Your task to perform on an android device: toggle pop-ups in chrome Image 0: 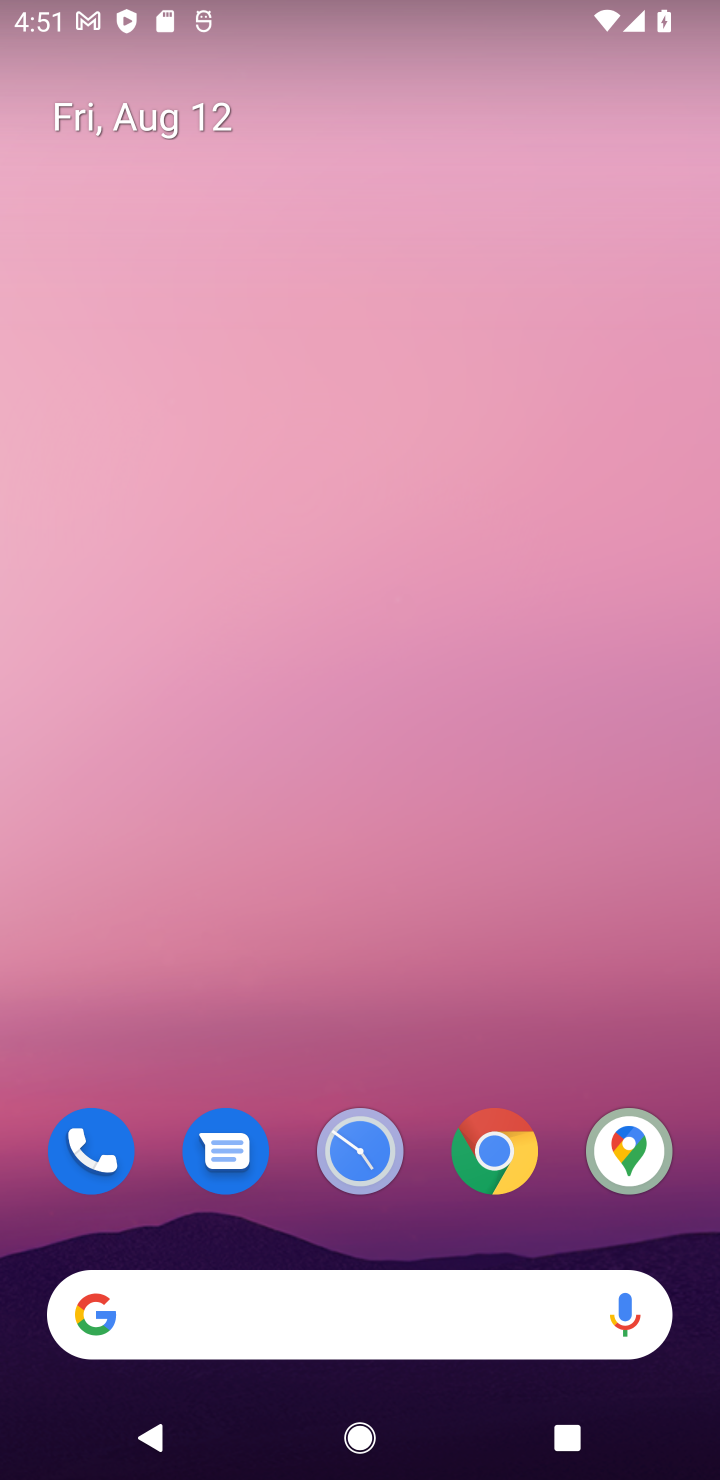
Step 0: drag from (418, 777) to (533, 63)
Your task to perform on an android device: toggle pop-ups in chrome Image 1: 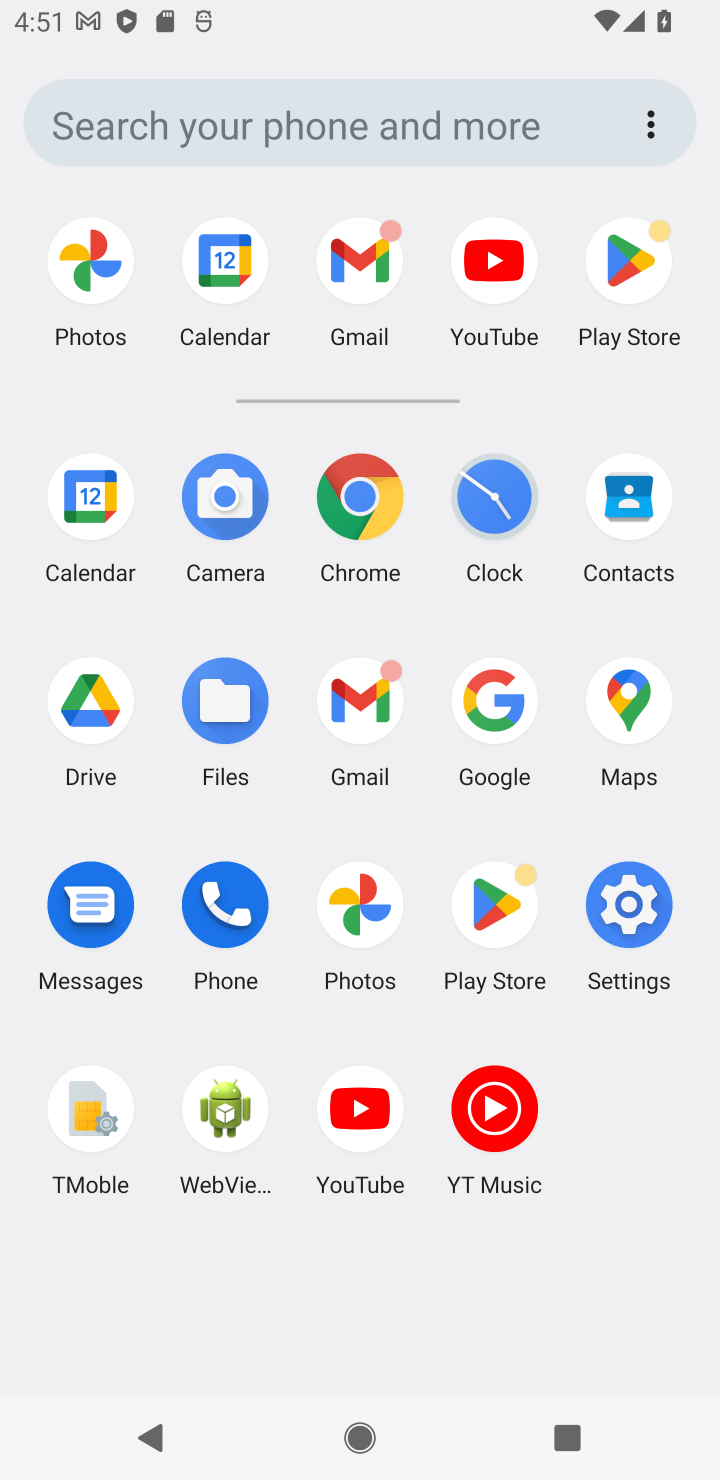
Step 1: click (361, 488)
Your task to perform on an android device: toggle pop-ups in chrome Image 2: 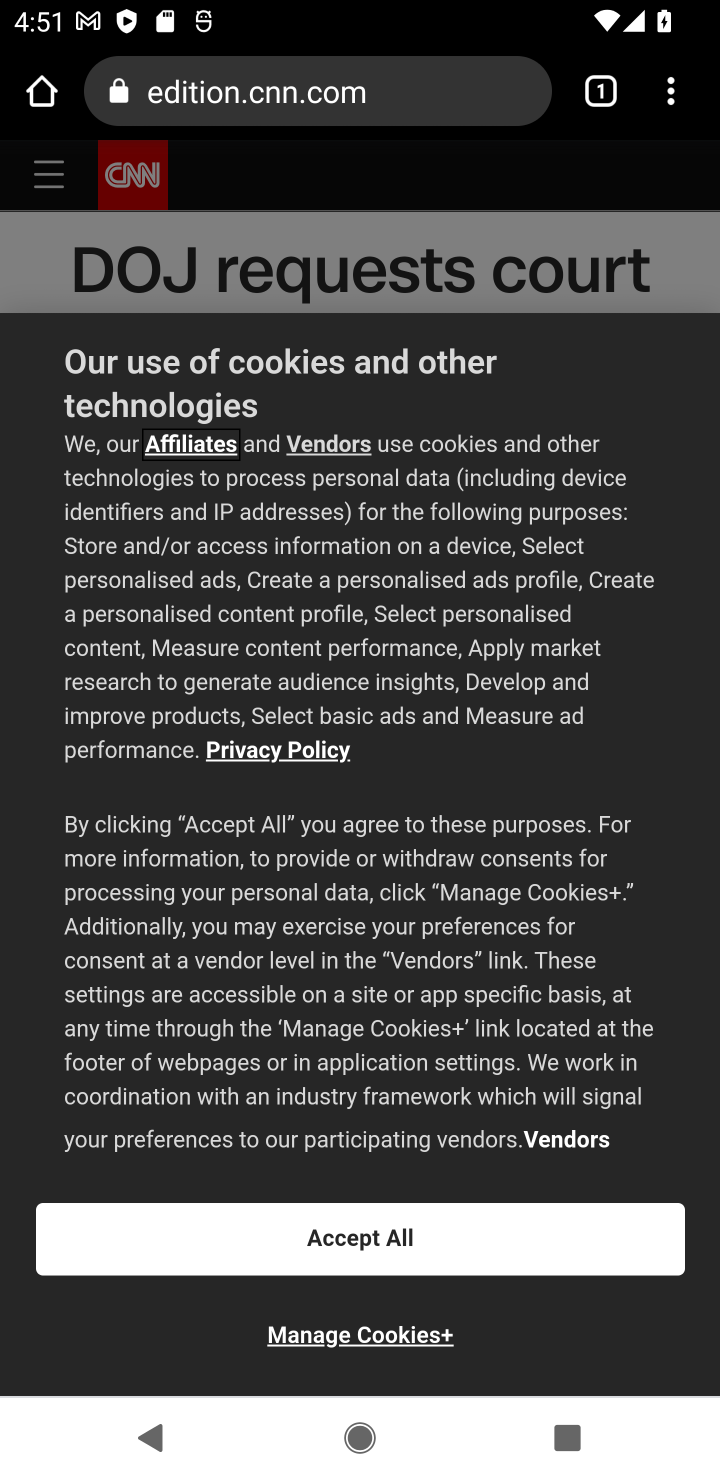
Step 2: drag from (678, 77) to (364, 1265)
Your task to perform on an android device: toggle pop-ups in chrome Image 3: 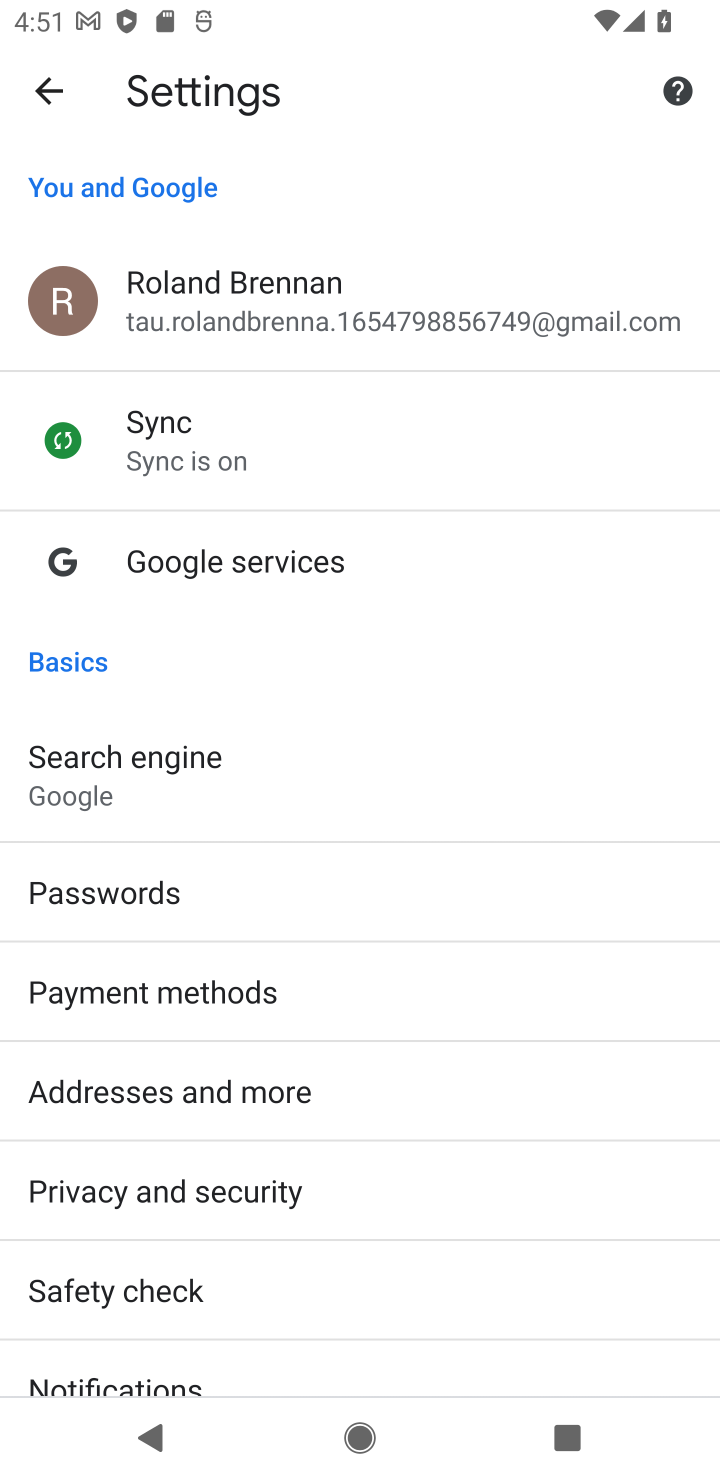
Step 3: drag from (433, 1226) to (612, 445)
Your task to perform on an android device: toggle pop-ups in chrome Image 4: 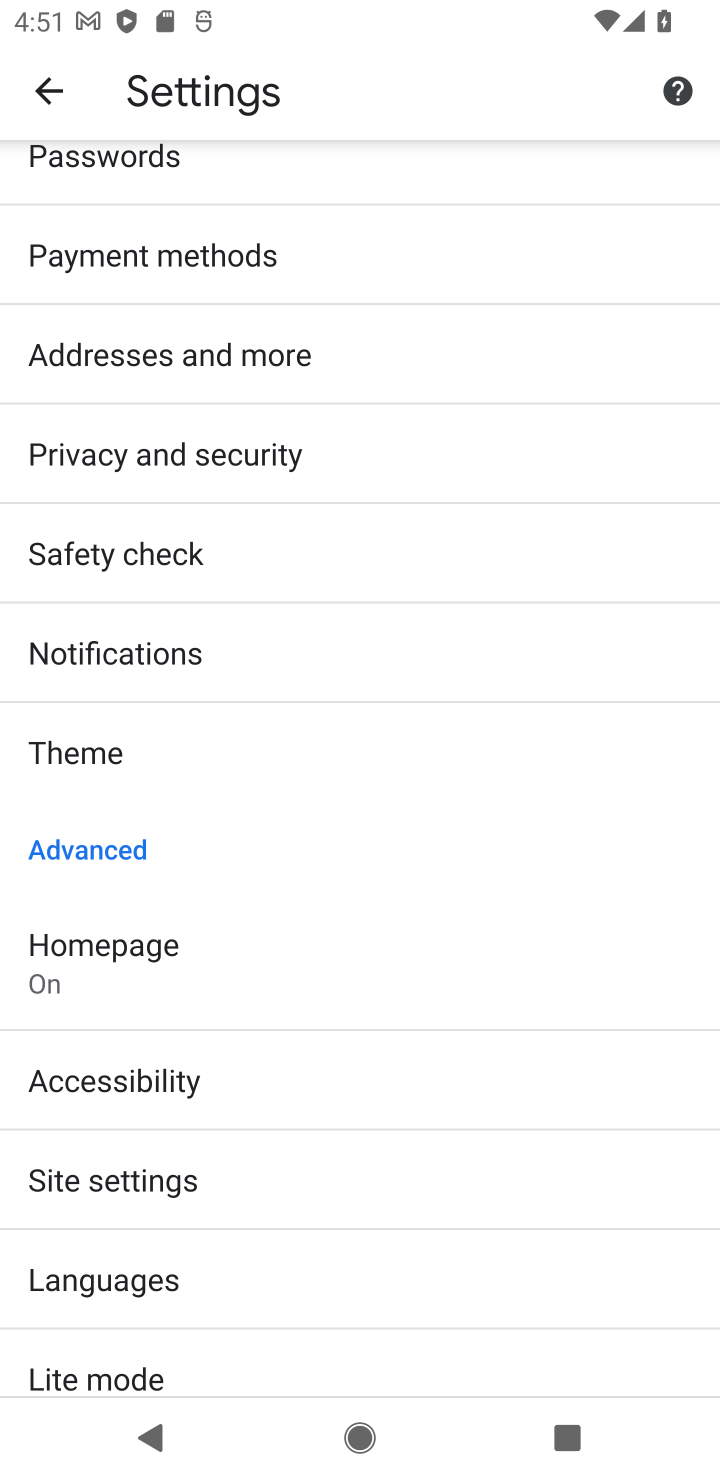
Step 4: click (189, 1166)
Your task to perform on an android device: toggle pop-ups in chrome Image 5: 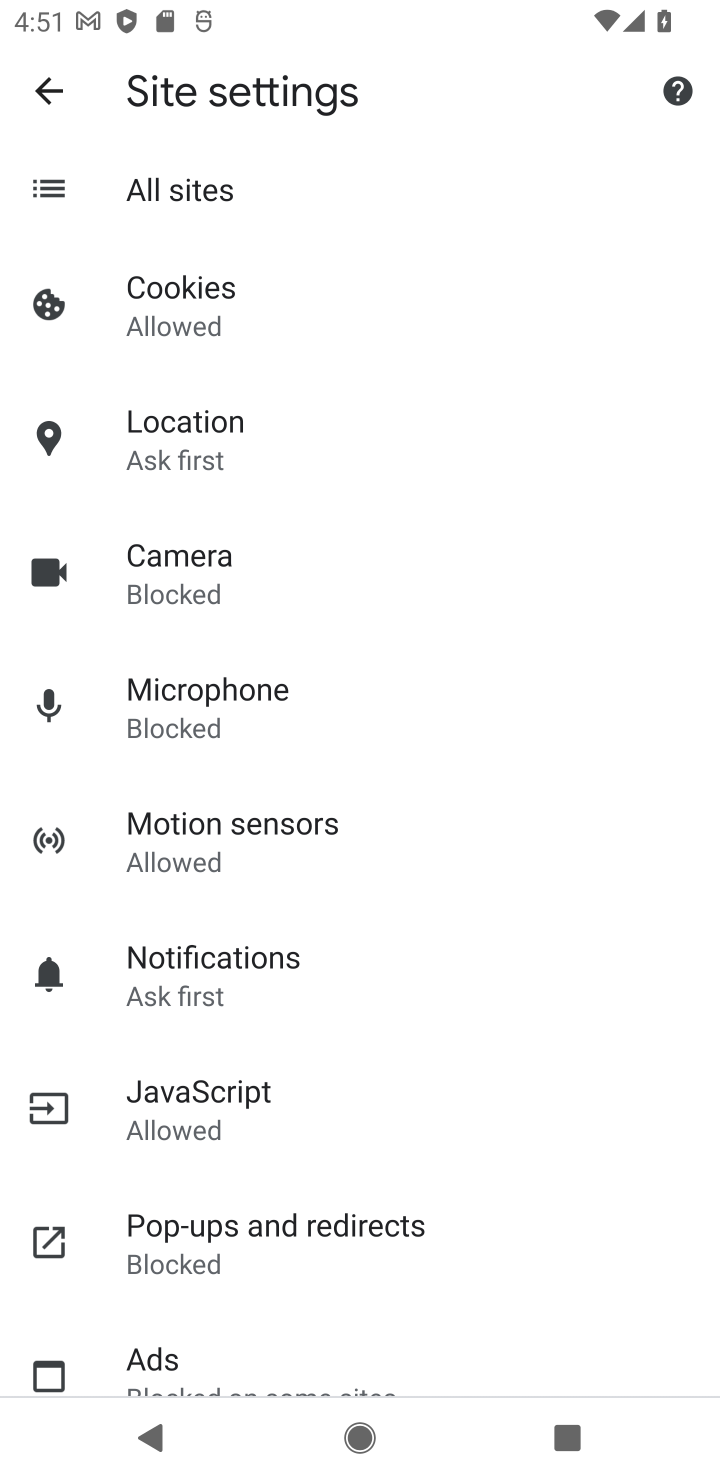
Step 5: click (321, 1242)
Your task to perform on an android device: toggle pop-ups in chrome Image 6: 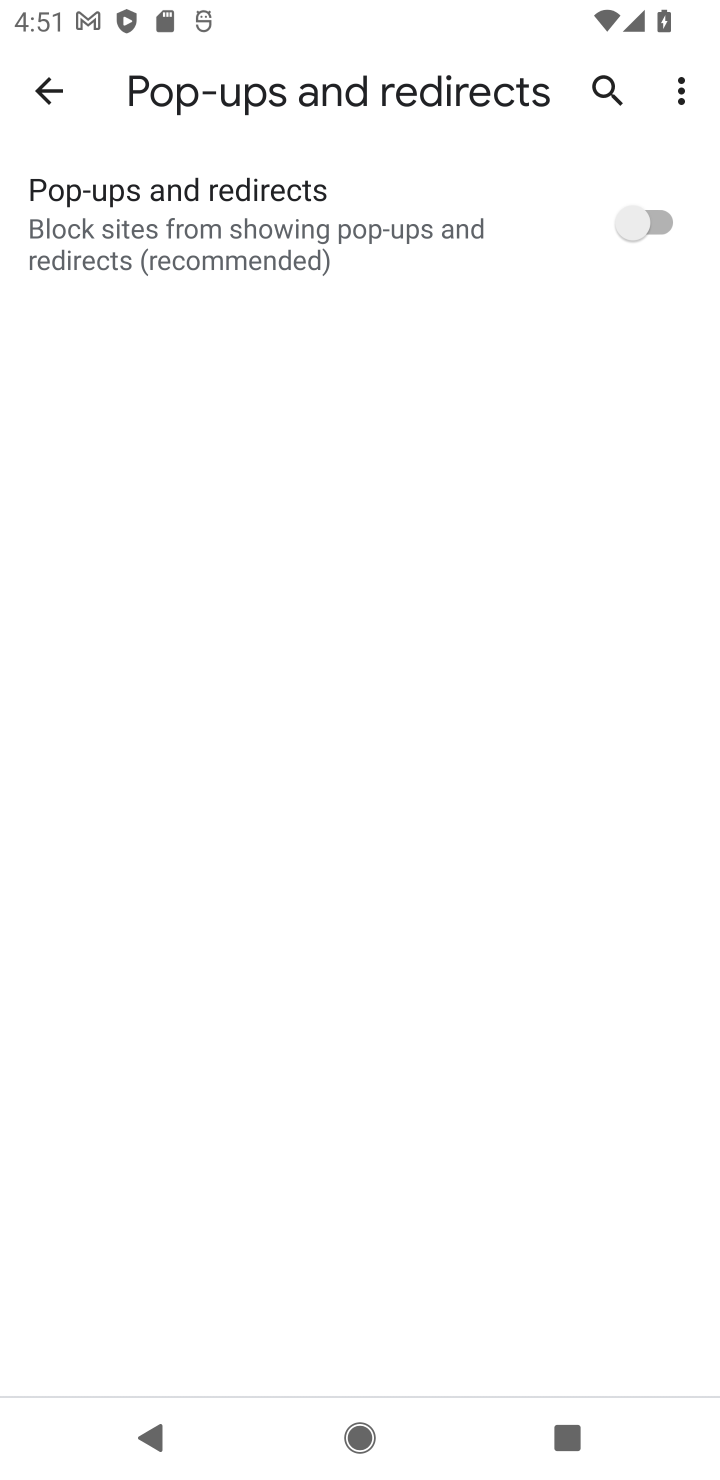
Step 6: click (622, 254)
Your task to perform on an android device: toggle pop-ups in chrome Image 7: 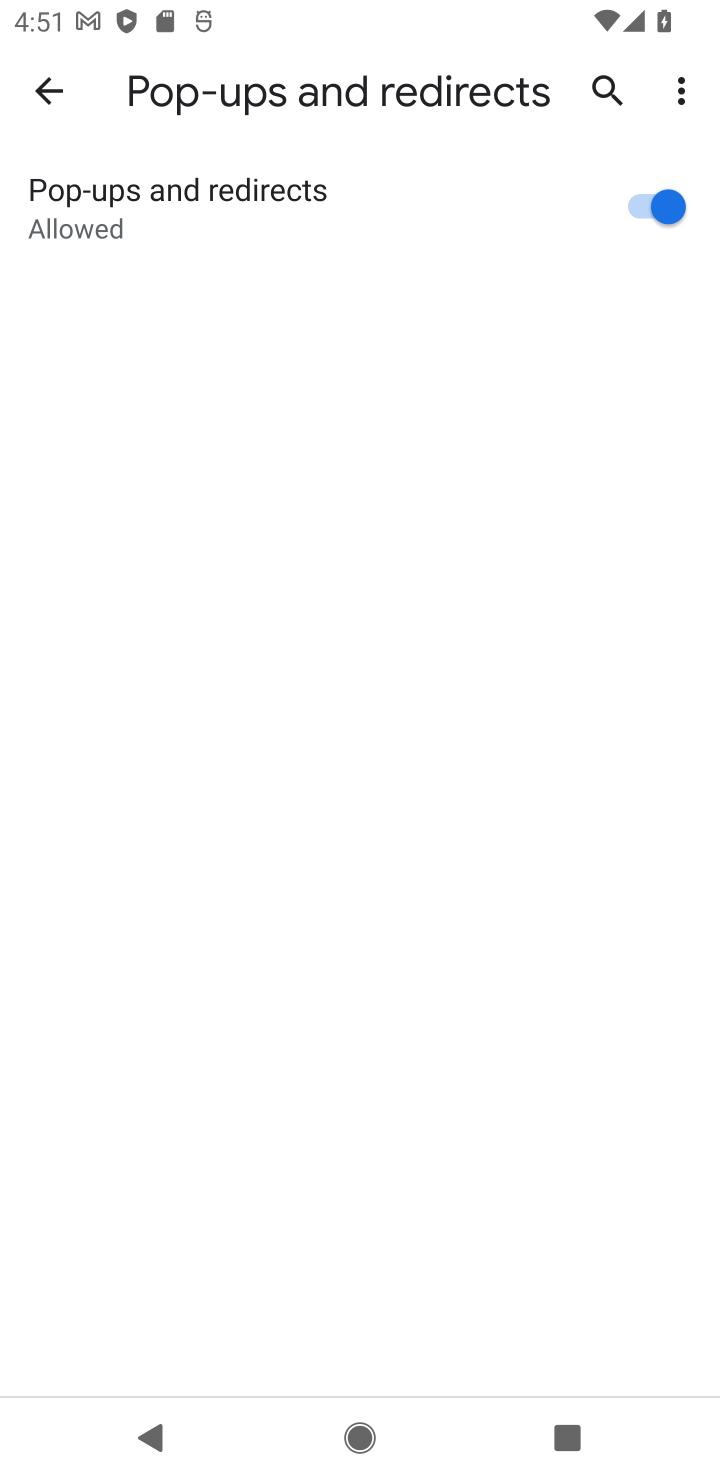
Step 7: task complete